Your task to perform on an android device: delete a single message in the gmail app Image 0: 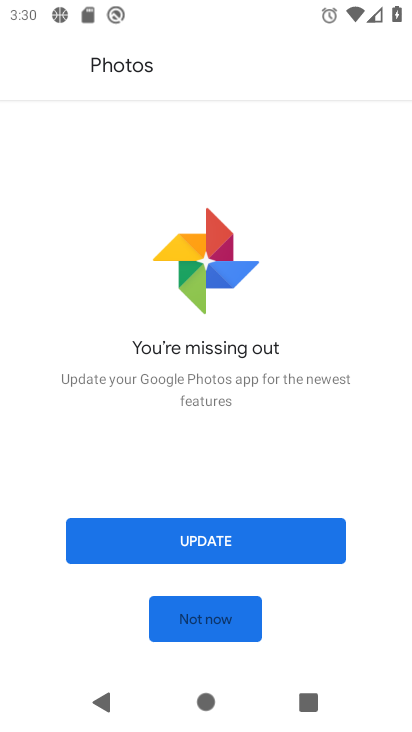
Step 0: press home button
Your task to perform on an android device: delete a single message in the gmail app Image 1: 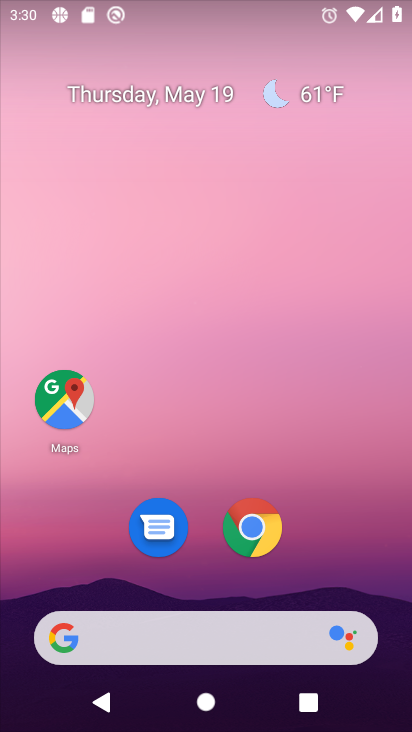
Step 1: drag from (216, 530) to (380, 7)
Your task to perform on an android device: delete a single message in the gmail app Image 2: 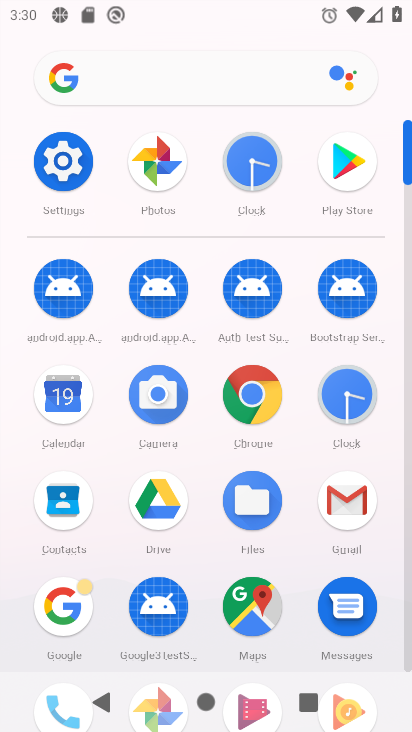
Step 2: click (340, 505)
Your task to perform on an android device: delete a single message in the gmail app Image 3: 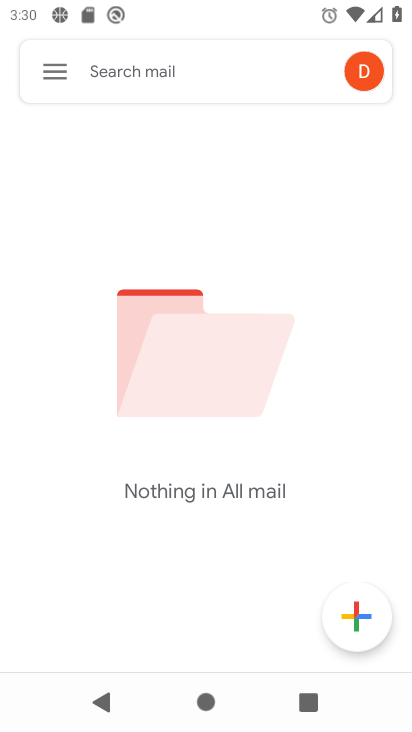
Step 3: task complete